Your task to perform on an android device: Open Google Chrome and open the bookmarks view Image 0: 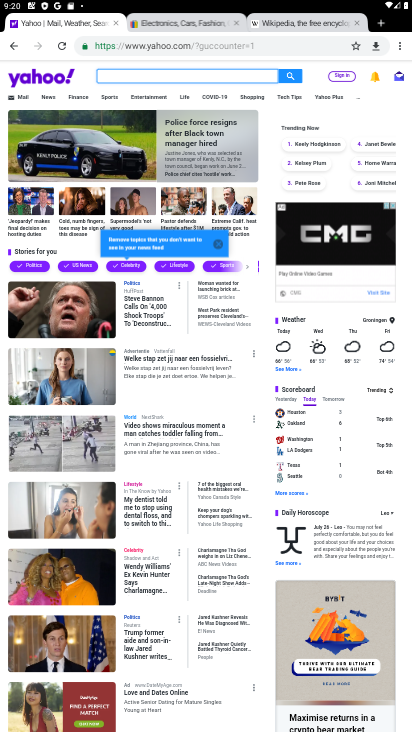
Step 0: click (403, 51)
Your task to perform on an android device: Open Google Chrome and open the bookmarks view Image 1: 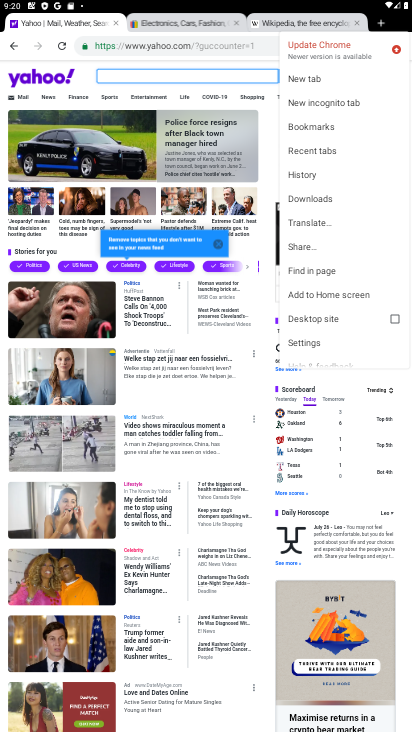
Step 1: press home button
Your task to perform on an android device: Open Google Chrome and open the bookmarks view Image 2: 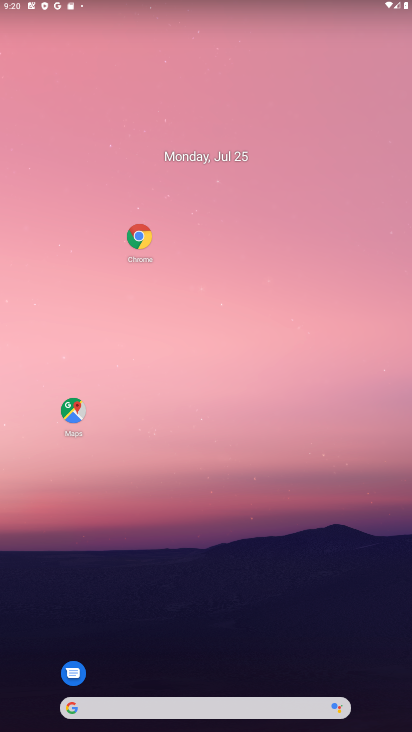
Step 2: click (147, 251)
Your task to perform on an android device: Open Google Chrome and open the bookmarks view Image 3: 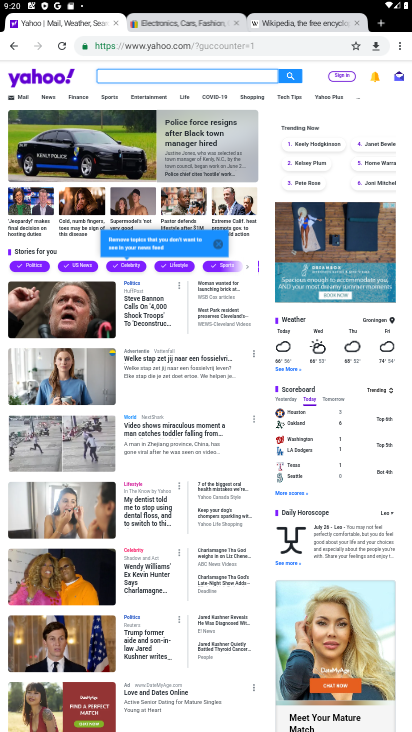
Step 3: click (394, 47)
Your task to perform on an android device: Open Google Chrome and open the bookmarks view Image 4: 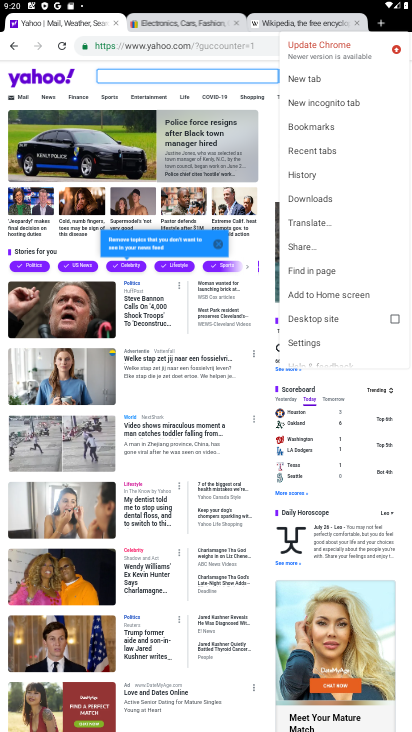
Step 4: click (319, 332)
Your task to perform on an android device: Open Google Chrome and open the bookmarks view Image 5: 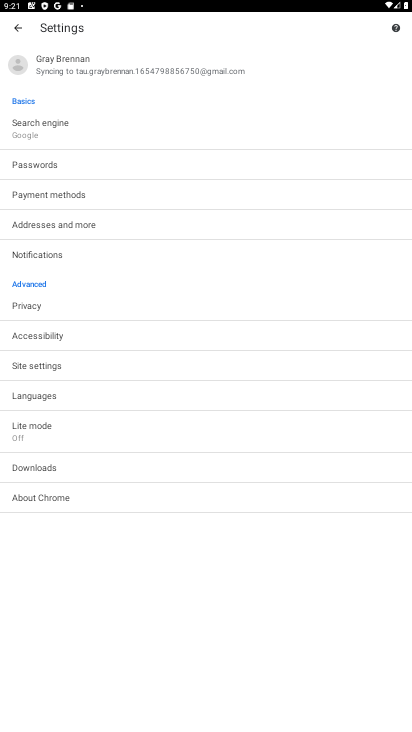
Step 5: task complete